Your task to perform on an android device: Check the news Image 0: 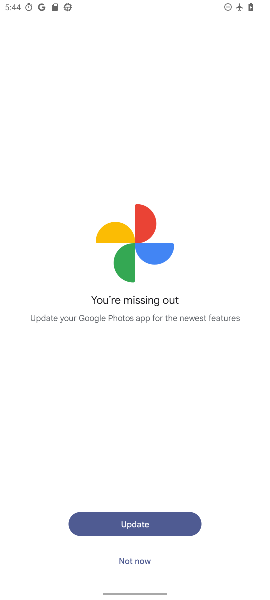
Step 0: drag from (129, 499) to (168, 176)
Your task to perform on an android device: Check the news Image 1: 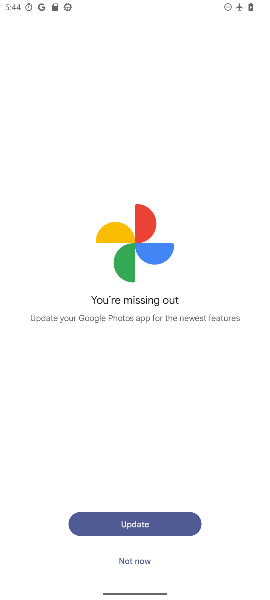
Step 1: press home button
Your task to perform on an android device: Check the news Image 2: 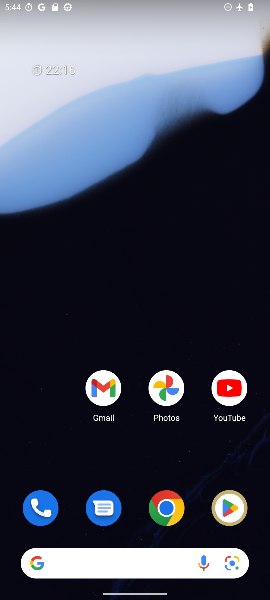
Step 2: drag from (152, 448) to (220, 147)
Your task to perform on an android device: Check the news Image 3: 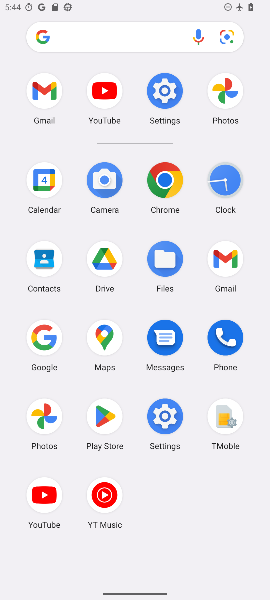
Step 3: click (87, 41)
Your task to perform on an android device: Check the news Image 4: 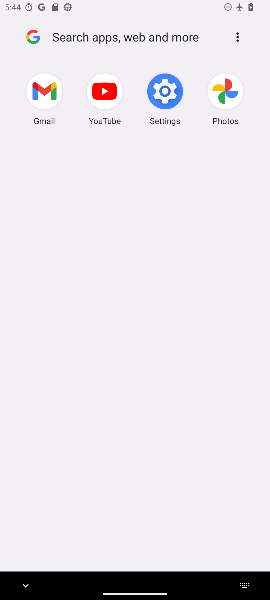
Step 4: type "news"
Your task to perform on an android device: Check the news Image 5: 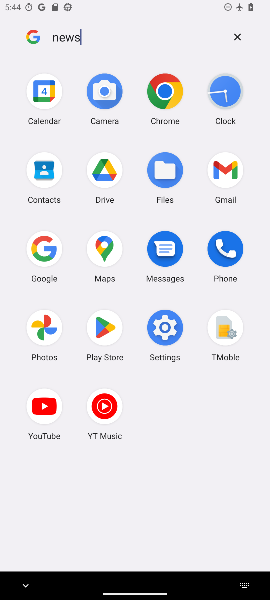
Step 5: click (235, 29)
Your task to perform on an android device: Check the news Image 6: 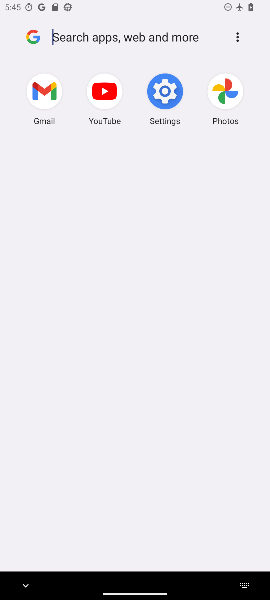
Step 6: drag from (169, 383) to (164, 31)
Your task to perform on an android device: Check the news Image 7: 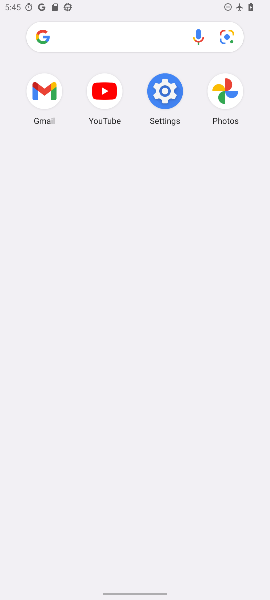
Step 7: drag from (139, 161) to (213, 503)
Your task to perform on an android device: Check the news Image 8: 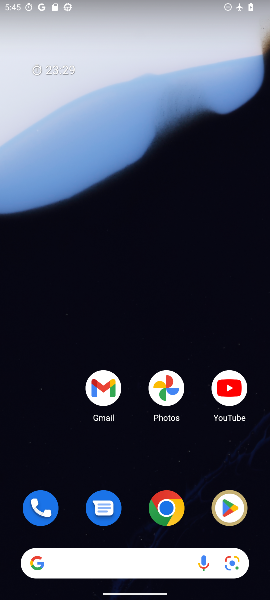
Step 8: drag from (113, 534) to (71, 111)
Your task to perform on an android device: Check the news Image 9: 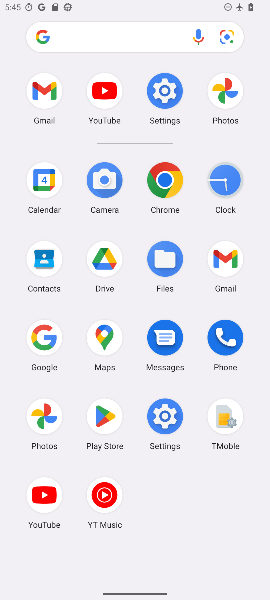
Step 9: click (126, 40)
Your task to perform on an android device: Check the news Image 10: 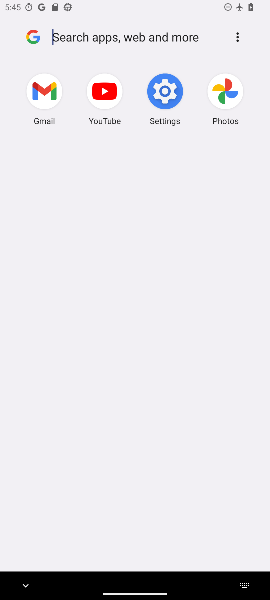
Step 10: task complete